Your task to perform on an android device: Open internet settings Image 0: 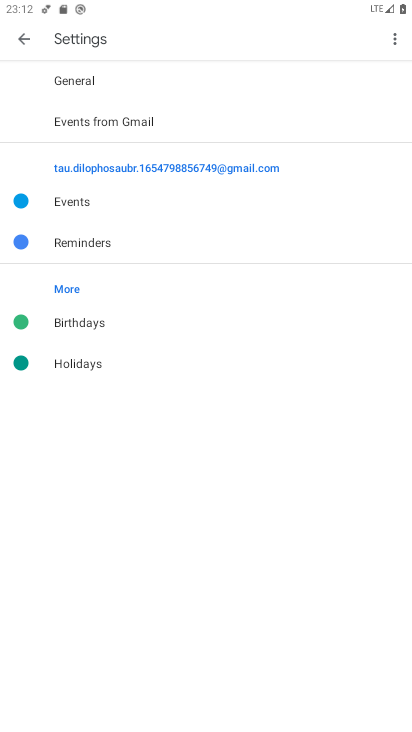
Step 0: press home button
Your task to perform on an android device: Open internet settings Image 1: 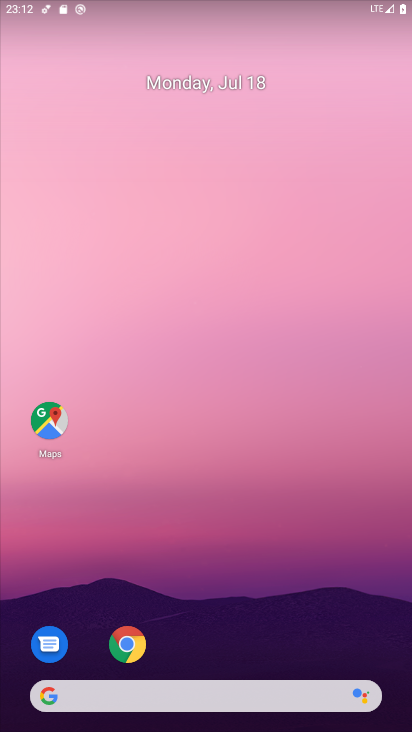
Step 1: drag from (347, 595) to (371, 103)
Your task to perform on an android device: Open internet settings Image 2: 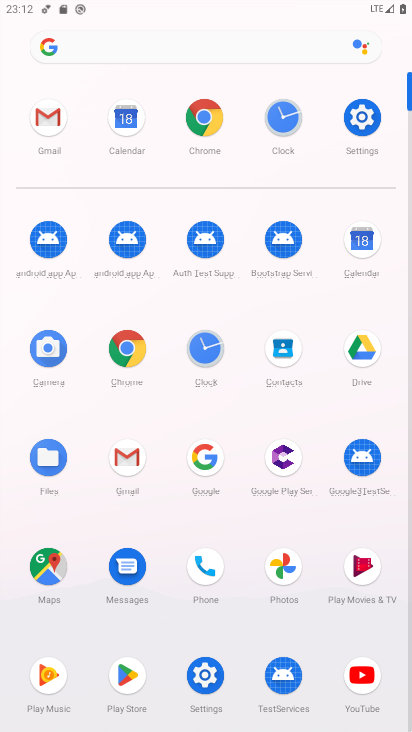
Step 2: click (356, 125)
Your task to perform on an android device: Open internet settings Image 3: 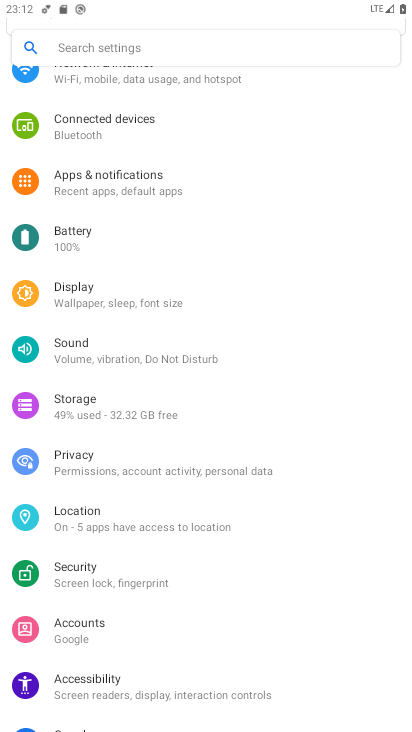
Step 3: drag from (325, 323) to (326, 422)
Your task to perform on an android device: Open internet settings Image 4: 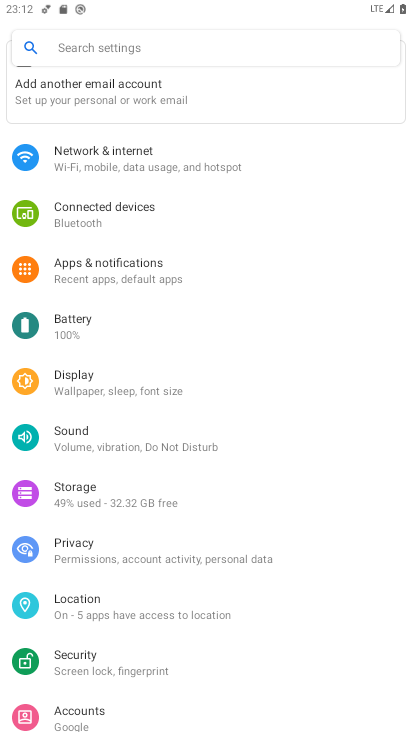
Step 4: drag from (306, 239) to (303, 371)
Your task to perform on an android device: Open internet settings Image 5: 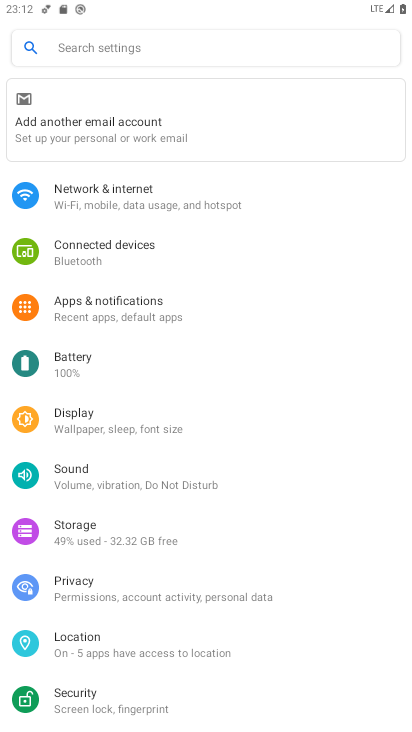
Step 5: drag from (321, 491) to (320, 400)
Your task to perform on an android device: Open internet settings Image 6: 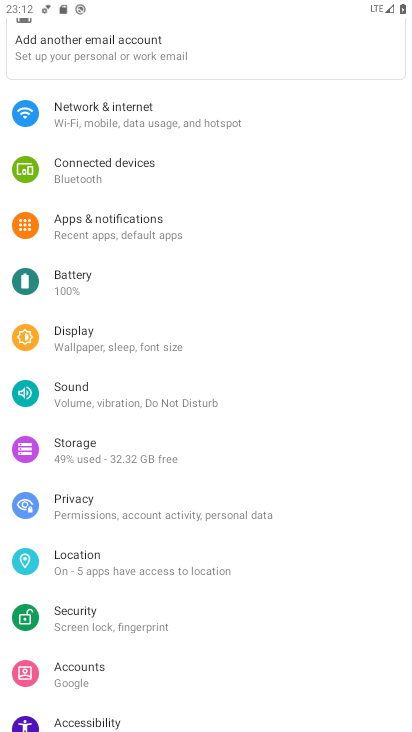
Step 6: drag from (325, 503) to (338, 402)
Your task to perform on an android device: Open internet settings Image 7: 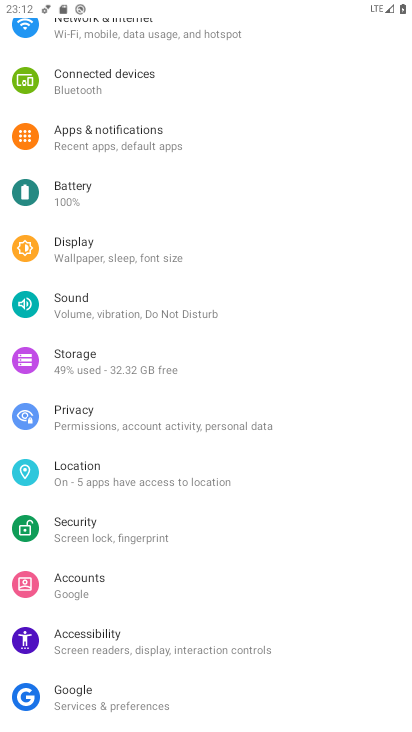
Step 7: drag from (345, 510) to (354, 419)
Your task to perform on an android device: Open internet settings Image 8: 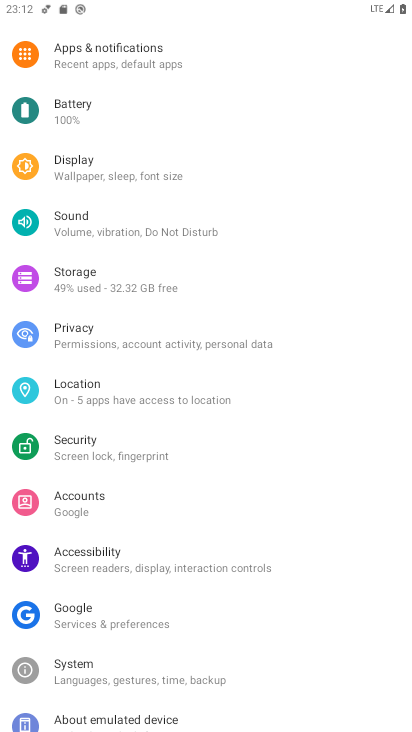
Step 8: drag from (338, 543) to (338, 428)
Your task to perform on an android device: Open internet settings Image 9: 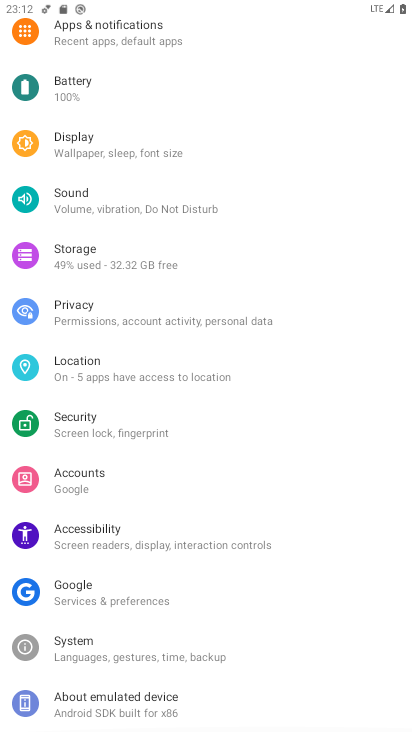
Step 9: drag from (329, 302) to (321, 407)
Your task to perform on an android device: Open internet settings Image 10: 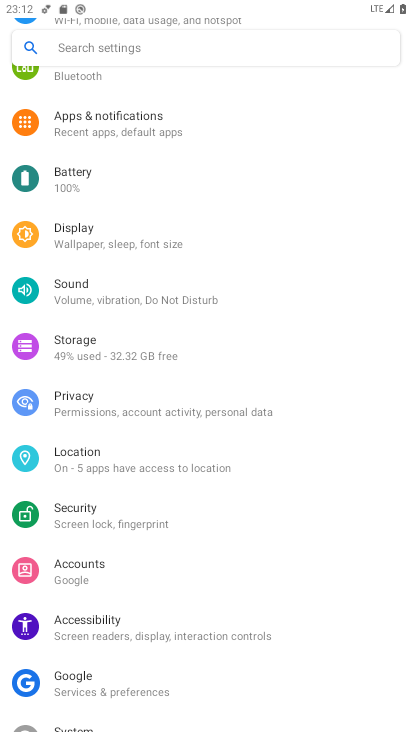
Step 10: drag from (317, 274) to (324, 379)
Your task to perform on an android device: Open internet settings Image 11: 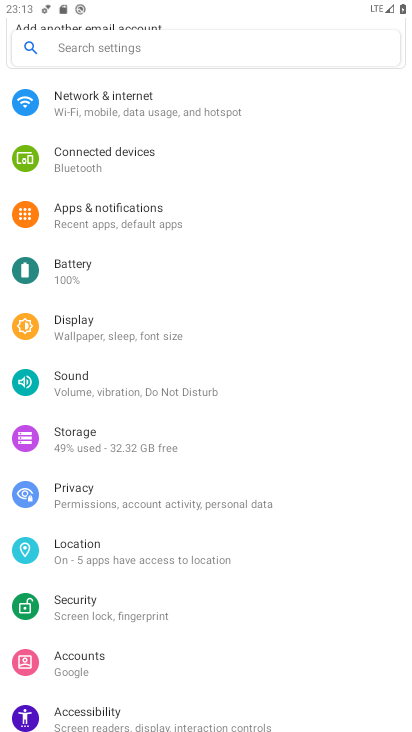
Step 11: drag from (312, 239) to (318, 364)
Your task to perform on an android device: Open internet settings Image 12: 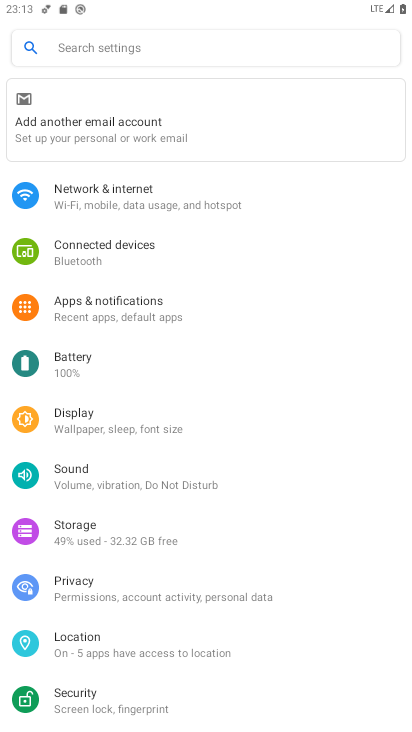
Step 12: drag from (322, 234) to (315, 338)
Your task to perform on an android device: Open internet settings Image 13: 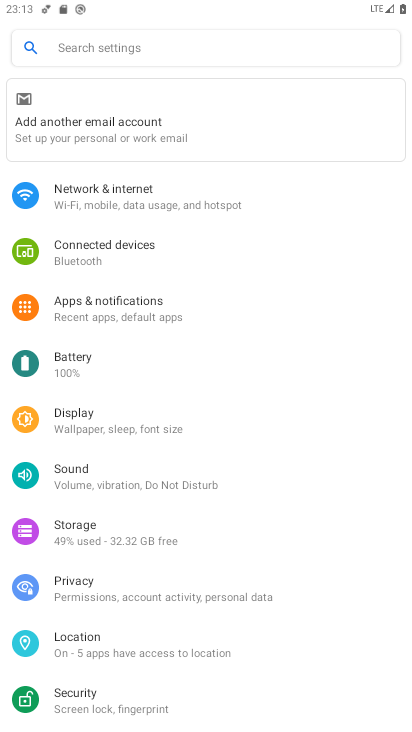
Step 13: click (222, 209)
Your task to perform on an android device: Open internet settings Image 14: 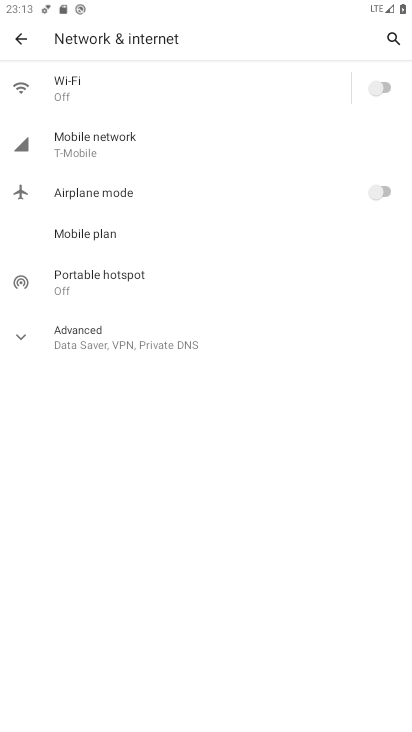
Step 14: task complete